Your task to perform on an android device: Go to battery settings Image 0: 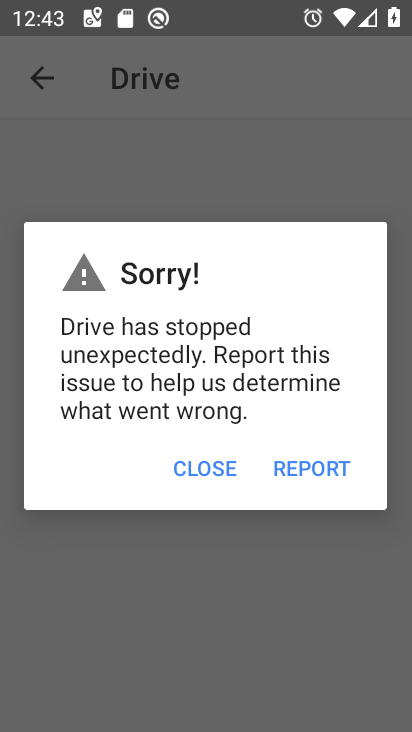
Step 0: press home button
Your task to perform on an android device: Go to battery settings Image 1: 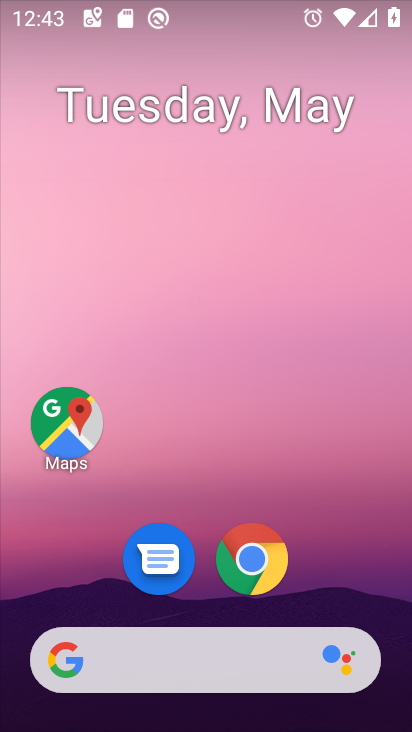
Step 1: drag from (384, 588) to (266, 114)
Your task to perform on an android device: Go to battery settings Image 2: 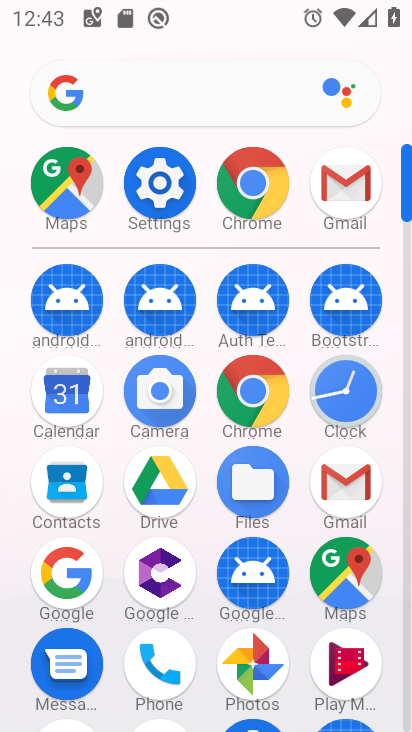
Step 2: click (143, 199)
Your task to perform on an android device: Go to battery settings Image 3: 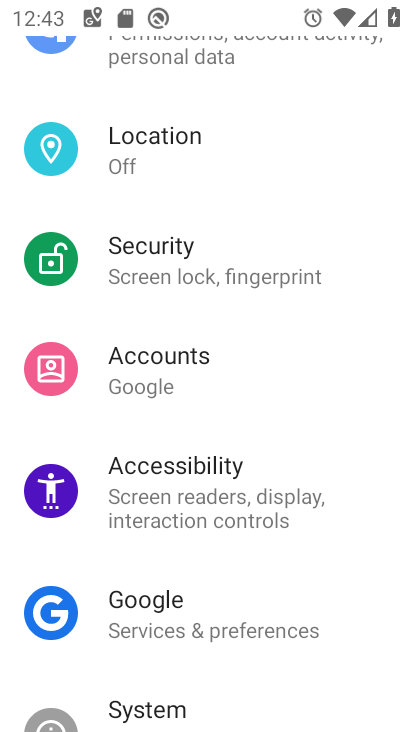
Step 3: drag from (213, 155) to (213, 588)
Your task to perform on an android device: Go to battery settings Image 4: 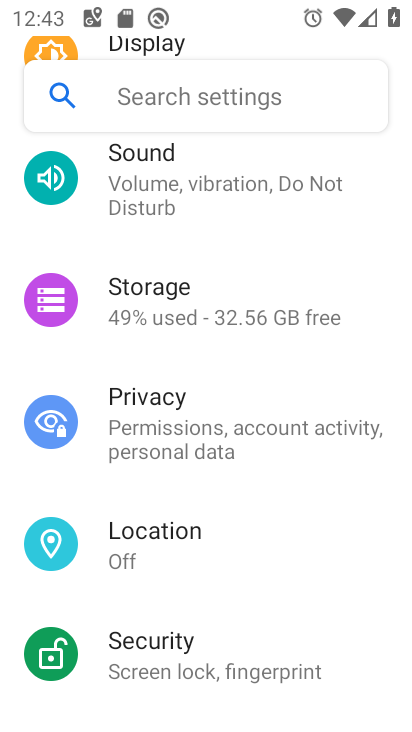
Step 4: drag from (178, 183) to (183, 635)
Your task to perform on an android device: Go to battery settings Image 5: 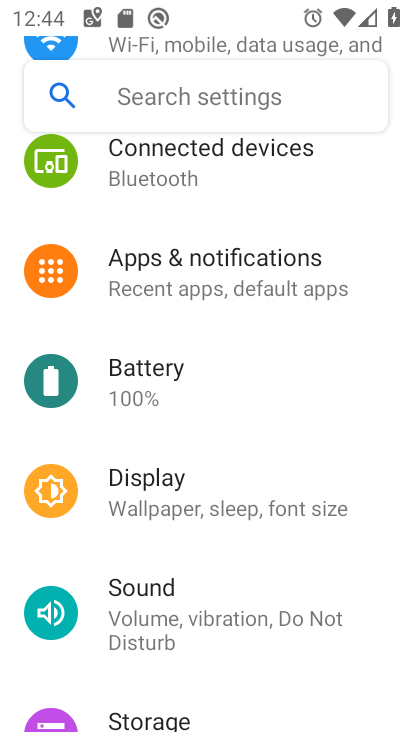
Step 5: click (170, 398)
Your task to perform on an android device: Go to battery settings Image 6: 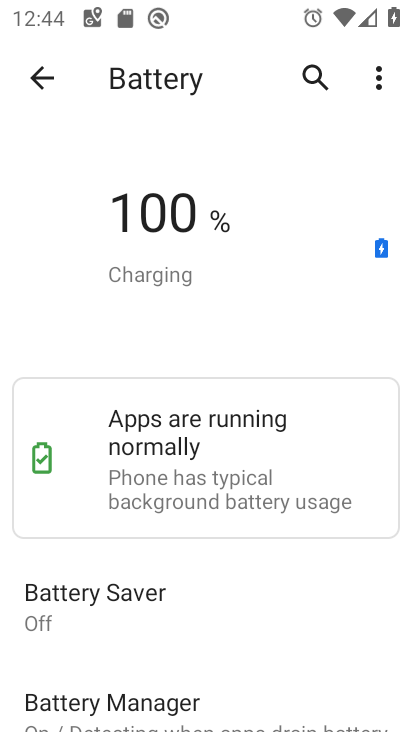
Step 6: task complete